Your task to perform on an android device: Open CNN.com Image 0: 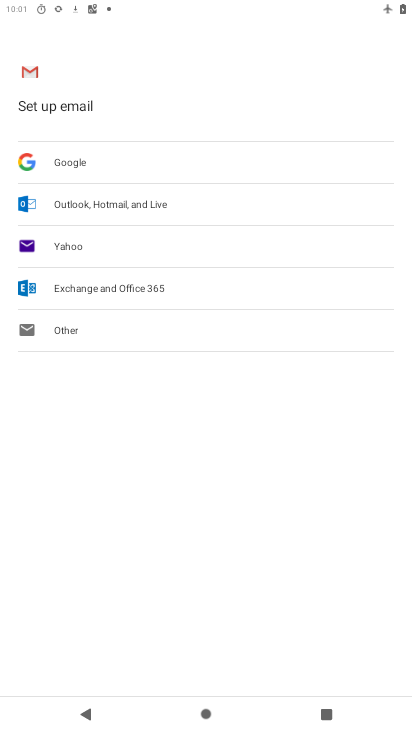
Step 0: press home button
Your task to perform on an android device: Open CNN.com Image 1: 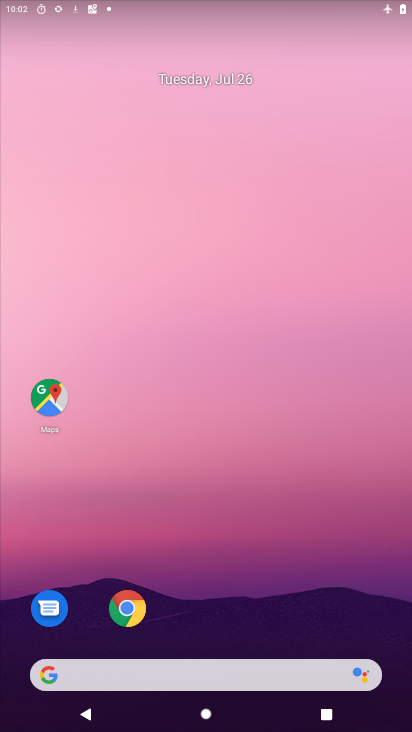
Step 1: click (138, 611)
Your task to perform on an android device: Open CNN.com Image 2: 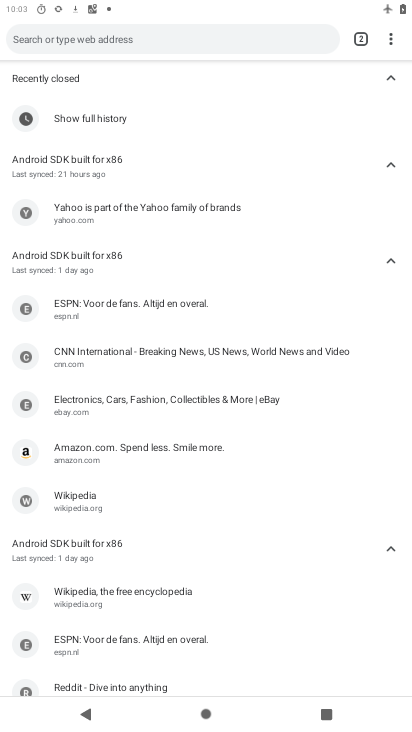
Step 2: click (360, 44)
Your task to perform on an android device: Open CNN.com Image 3: 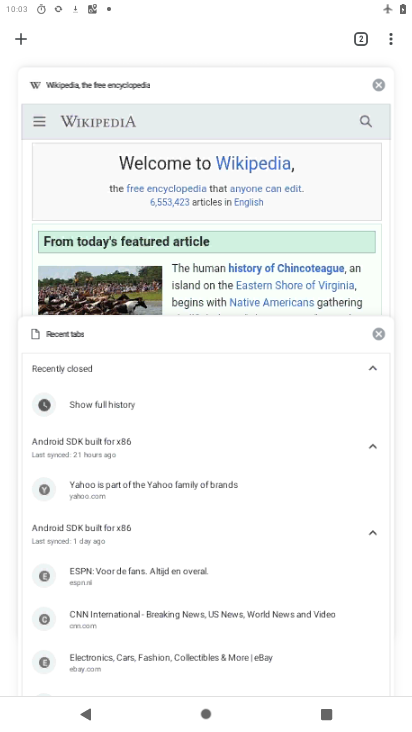
Step 3: click (25, 35)
Your task to perform on an android device: Open CNN.com Image 4: 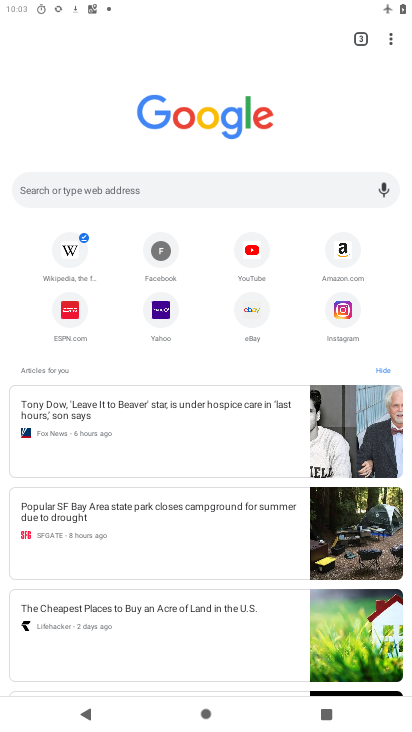
Step 4: click (172, 183)
Your task to perform on an android device: Open CNN.com Image 5: 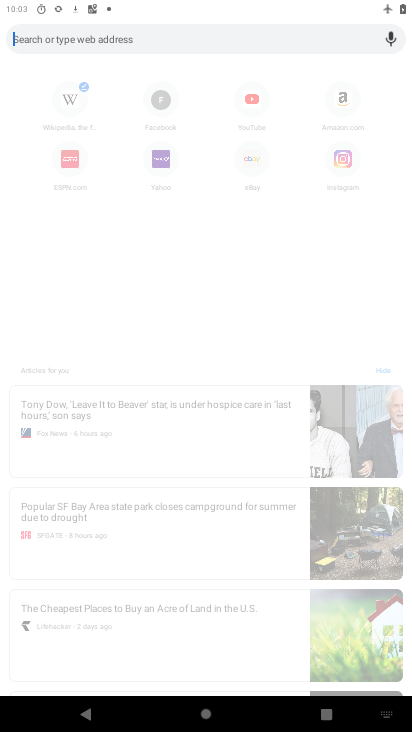
Step 5: type "CNN.com"
Your task to perform on an android device: Open CNN.com Image 6: 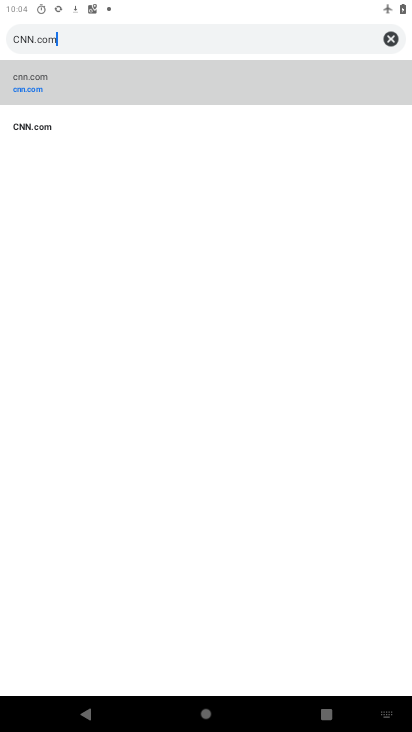
Step 6: click (133, 93)
Your task to perform on an android device: Open CNN.com Image 7: 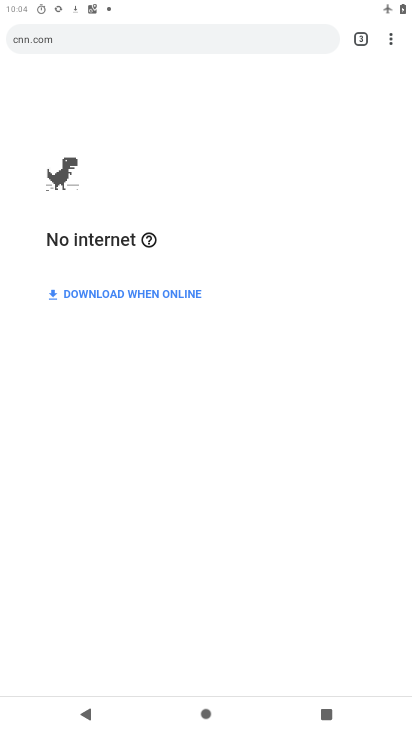
Step 7: task complete